Your task to perform on an android device: turn off picture-in-picture Image 0: 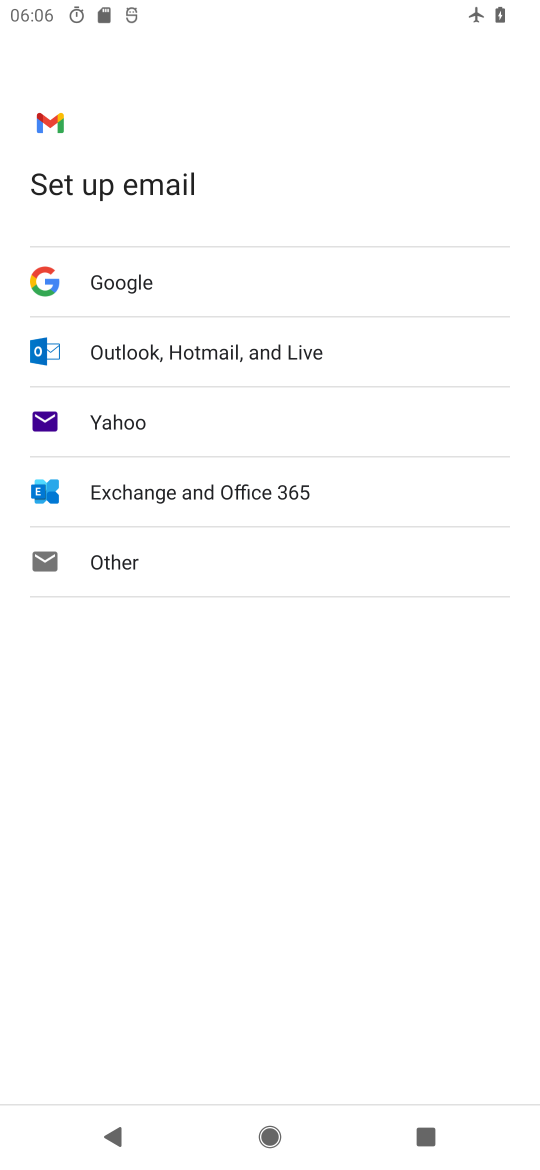
Step 0: press home button
Your task to perform on an android device: turn off picture-in-picture Image 1: 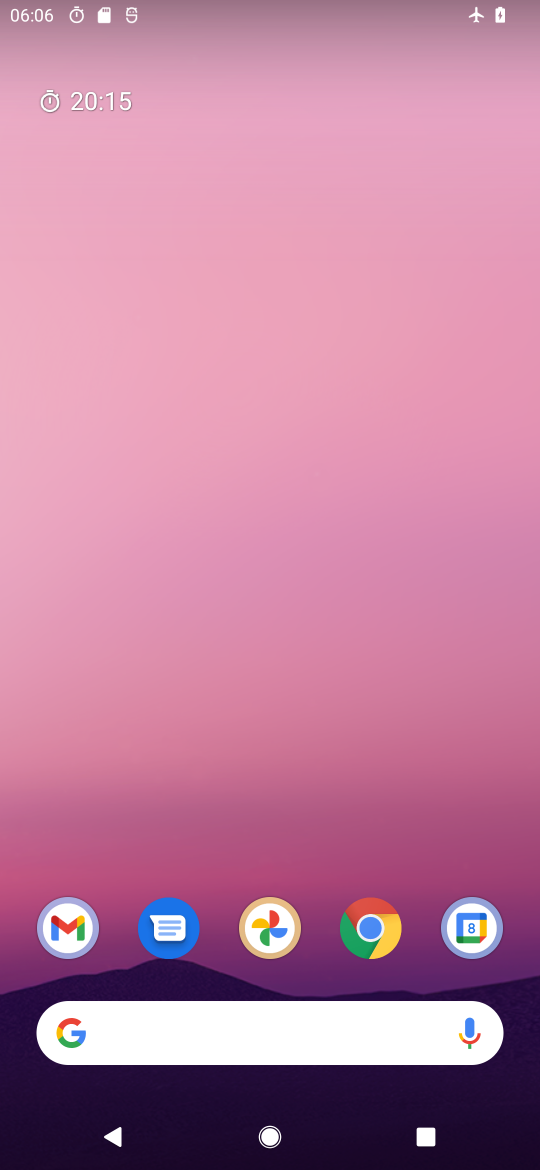
Step 1: click (366, 935)
Your task to perform on an android device: turn off picture-in-picture Image 2: 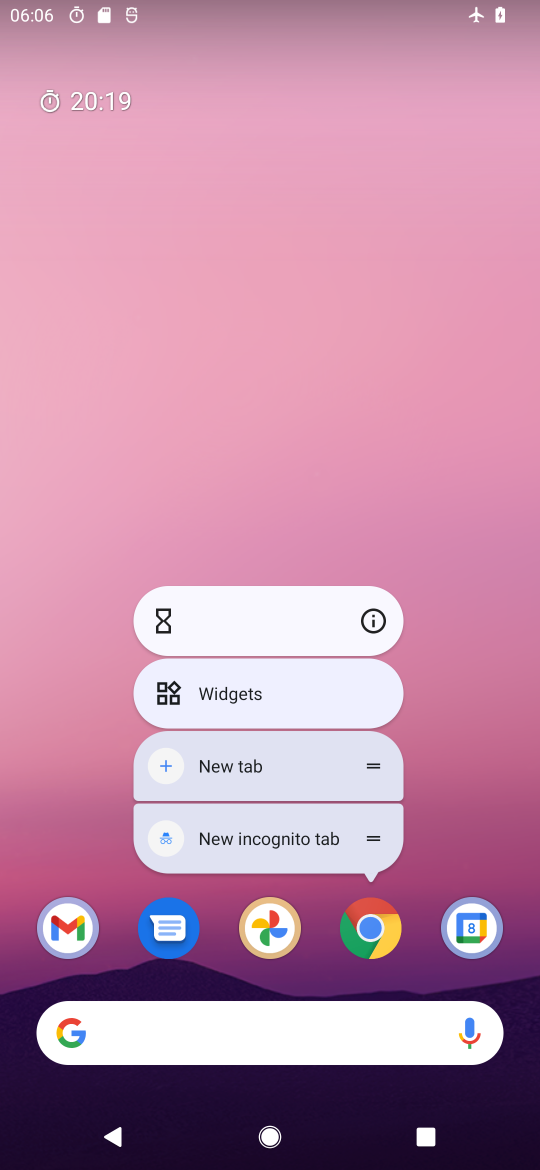
Step 2: click (378, 618)
Your task to perform on an android device: turn off picture-in-picture Image 3: 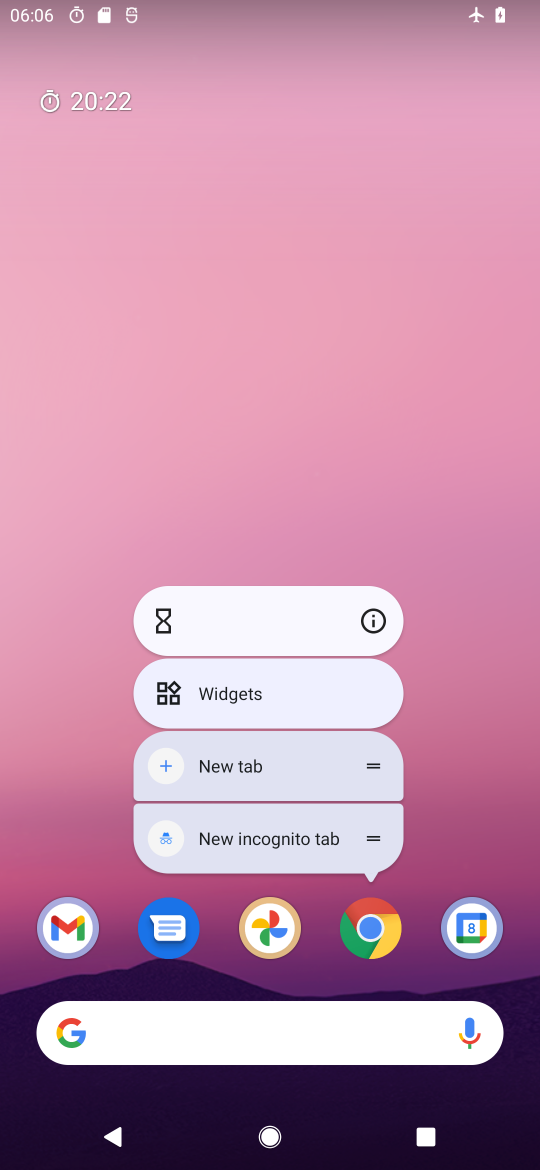
Step 3: click (366, 613)
Your task to perform on an android device: turn off picture-in-picture Image 4: 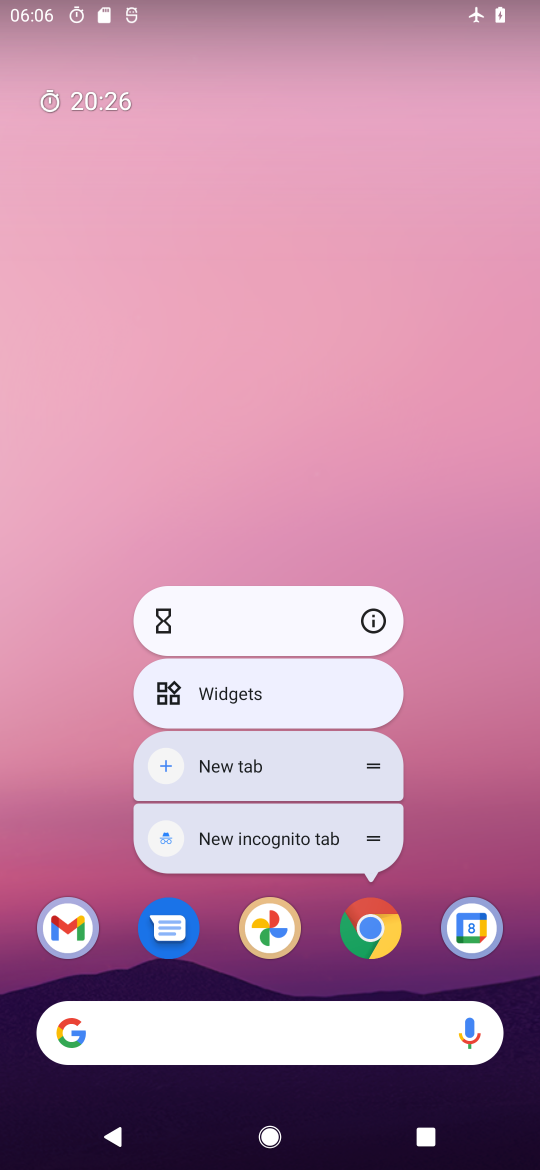
Step 4: click (369, 617)
Your task to perform on an android device: turn off picture-in-picture Image 5: 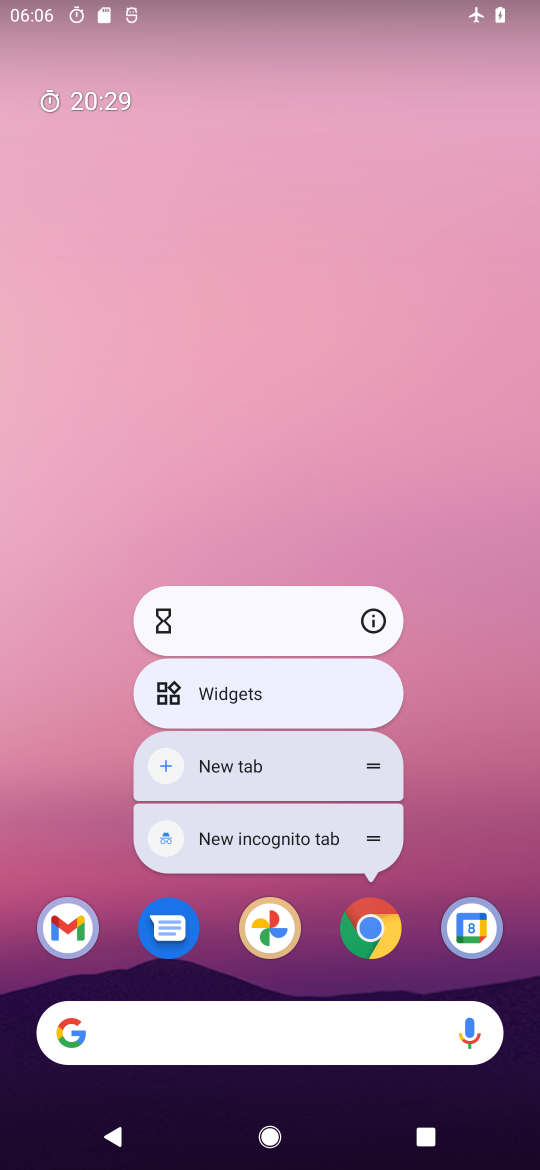
Step 5: click (372, 619)
Your task to perform on an android device: turn off picture-in-picture Image 6: 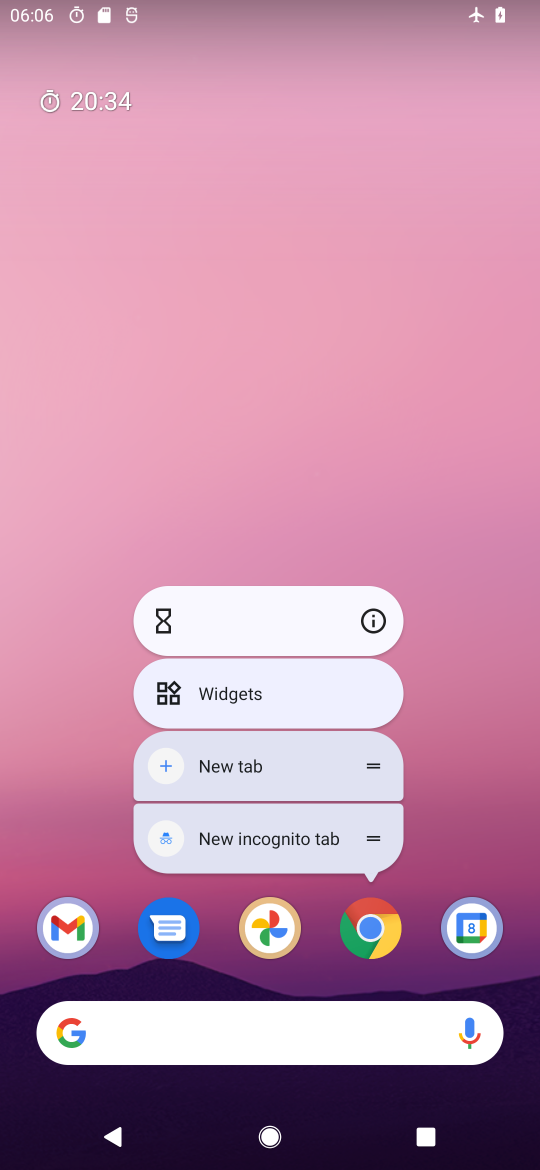
Step 6: click (372, 619)
Your task to perform on an android device: turn off picture-in-picture Image 7: 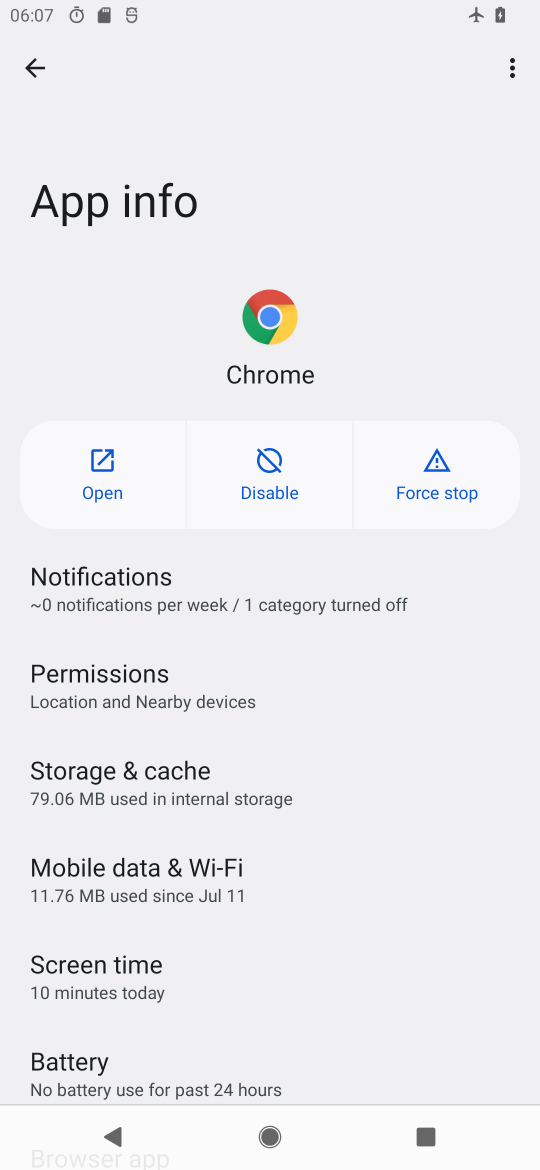
Step 7: drag from (221, 923) to (282, 491)
Your task to perform on an android device: turn off picture-in-picture Image 8: 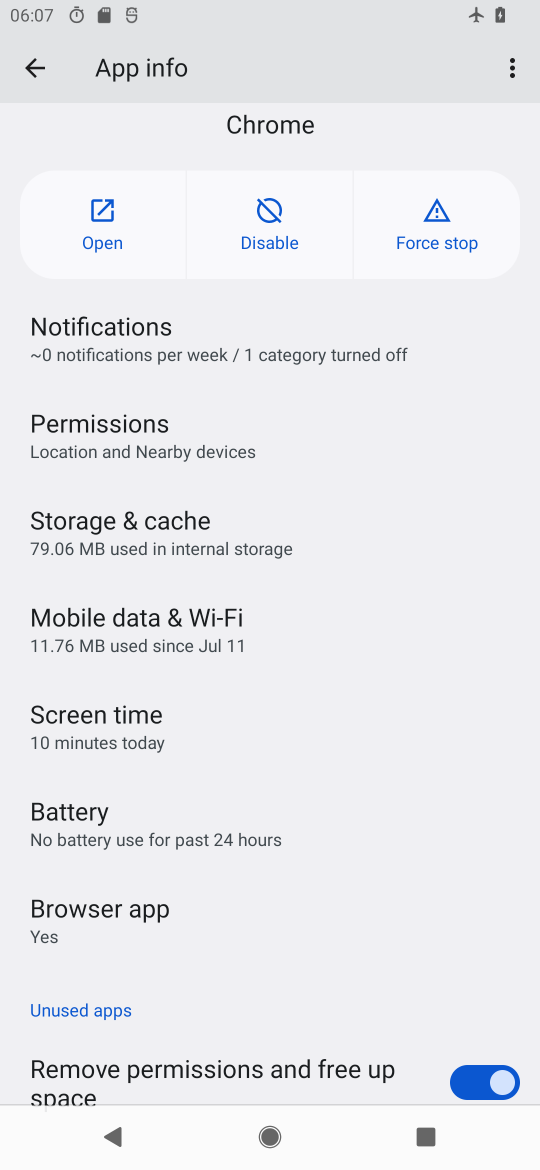
Step 8: drag from (230, 1007) to (250, 556)
Your task to perform on an android device: turn off picture-in-picture Image 9: 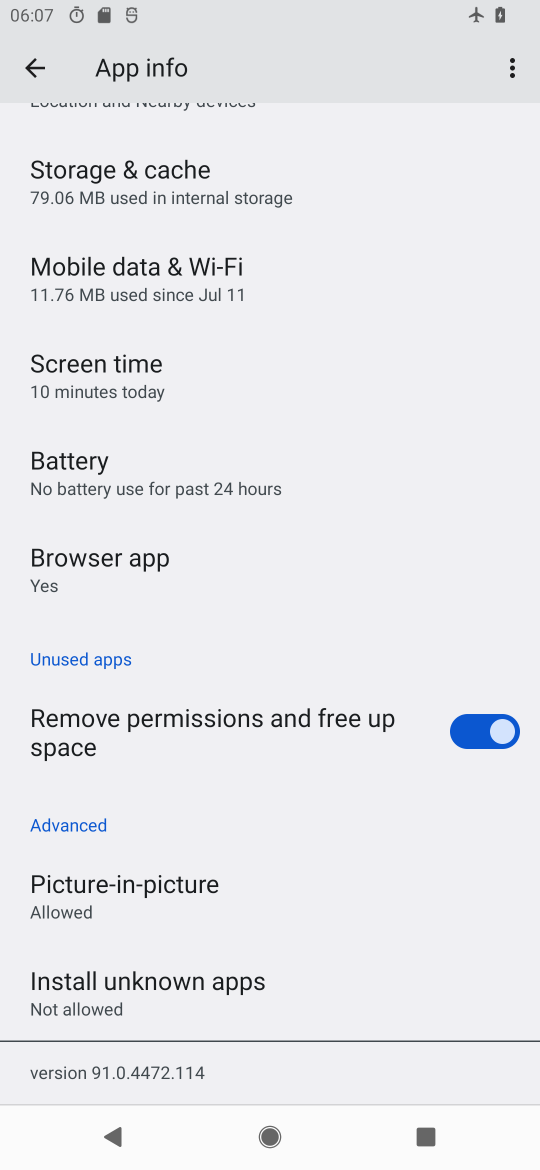
Step 9: drag from (166, 797) to (234, 254)
Your task to perform on an android device: turn off picture-in-picture Image 10: 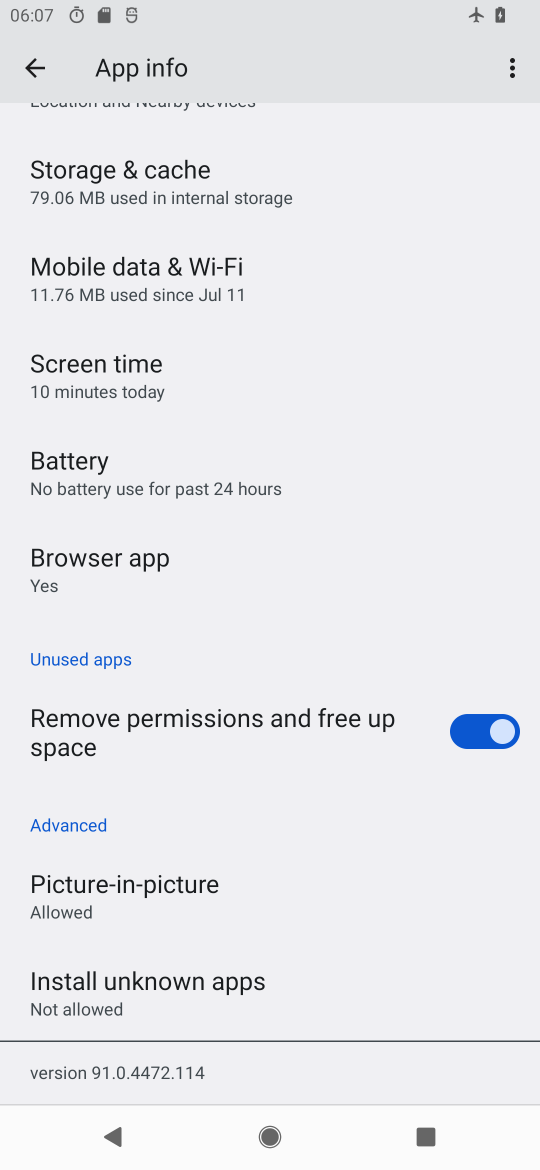
Step 10: click (109, 904)
Your task to perform on an android device: turn off picture-in-picture Image 11: 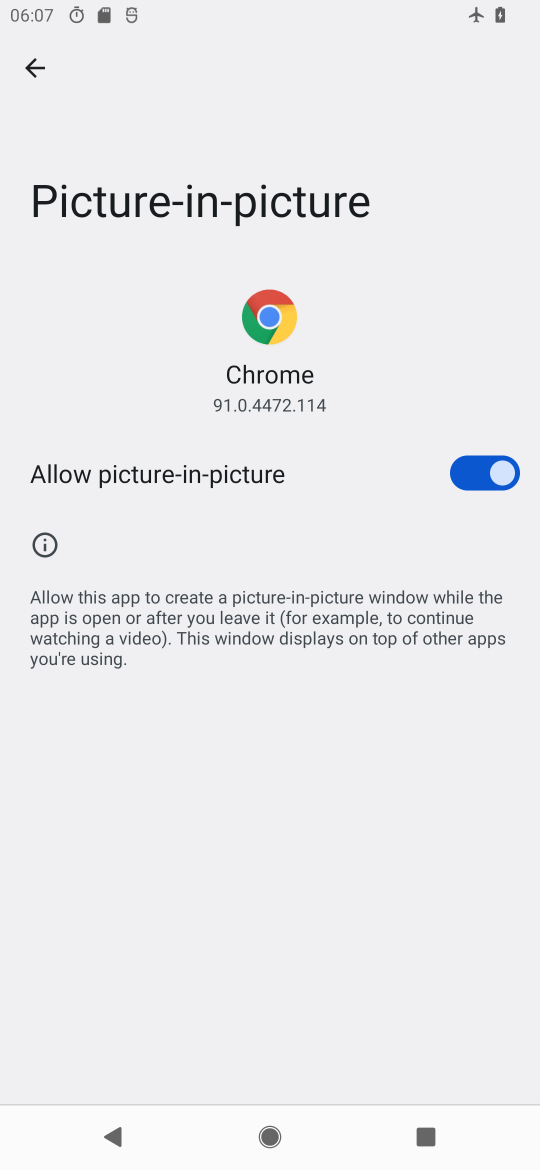
Step 11: click (450, 473)
Your task to perform on an android device: turn off picture-in-picture Image 12: 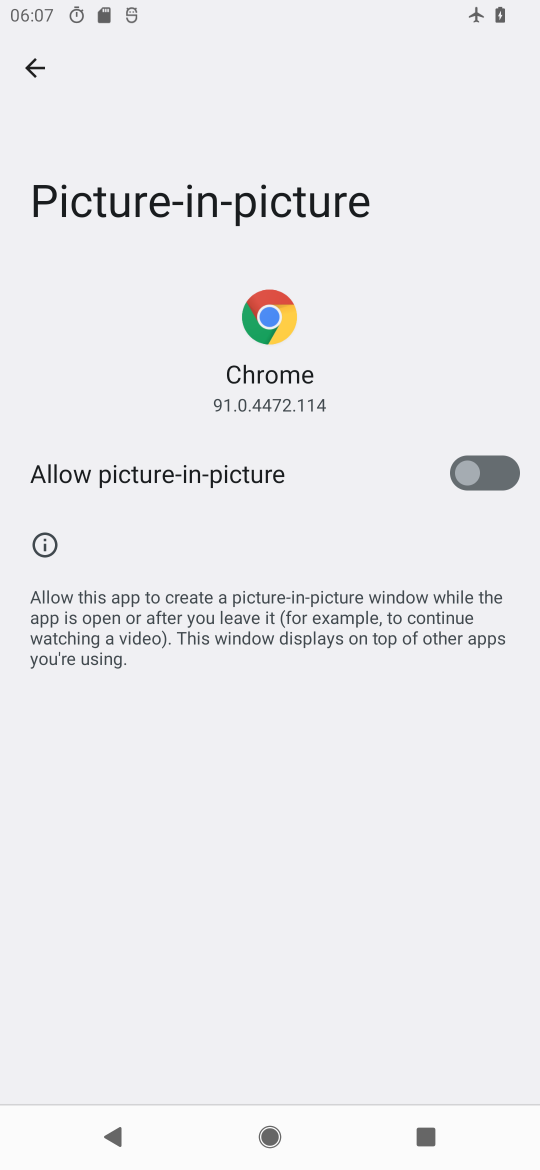
Step 12: task complete